Your task to perform on an android device: toggle location history Image 0: 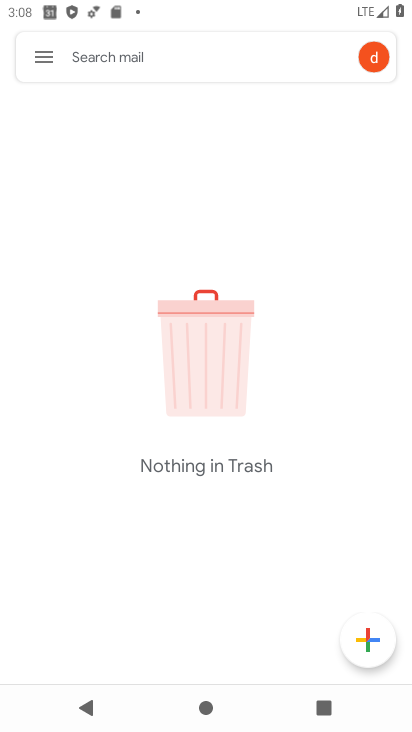
Step 0: press back button
Your task to perform on an android device: toggle location history Image 1: 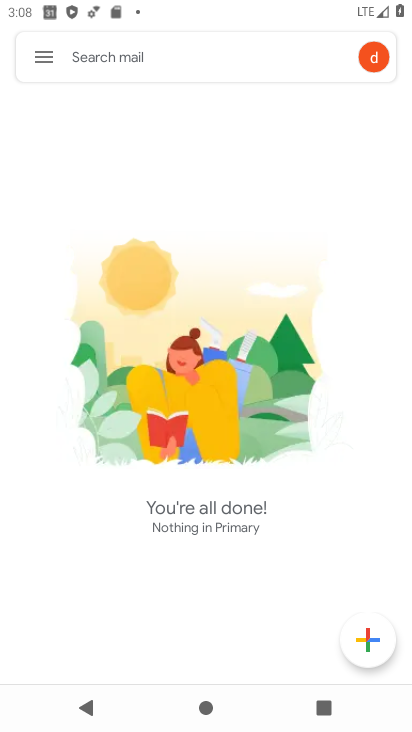
Step 1: press back button
Your task to perform on an android device: toggle location history Image 2: 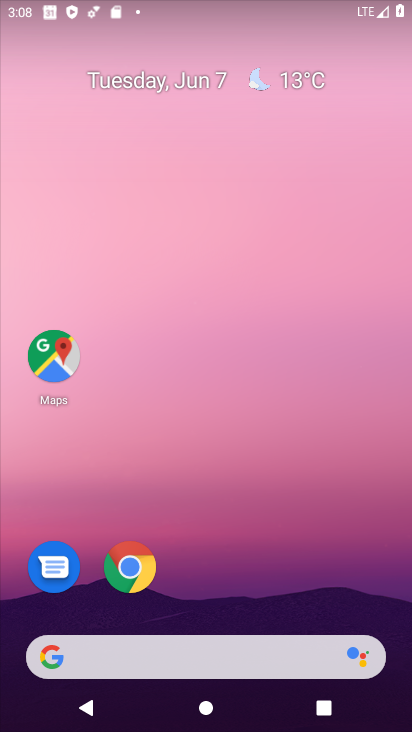
Step 2: drag from (282, 580) to (308, 26)
Your task to perform on an android device: toggle location history Image 3: 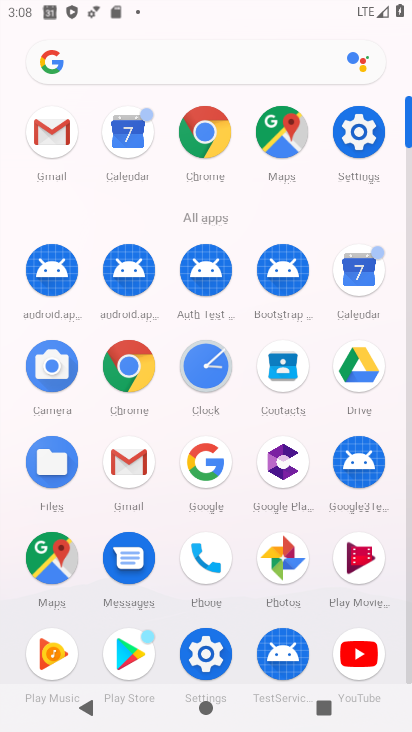
Step 3: click (359, 137)
Your task to perform on an android device: toggle location history Image 4: 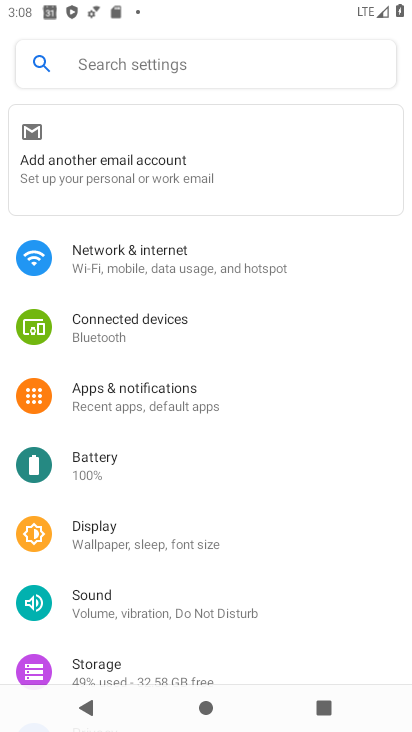
Step 4: drag from (130, 586) to (259, 78)
Your task to perform on an android device: toggle location history Image 5: 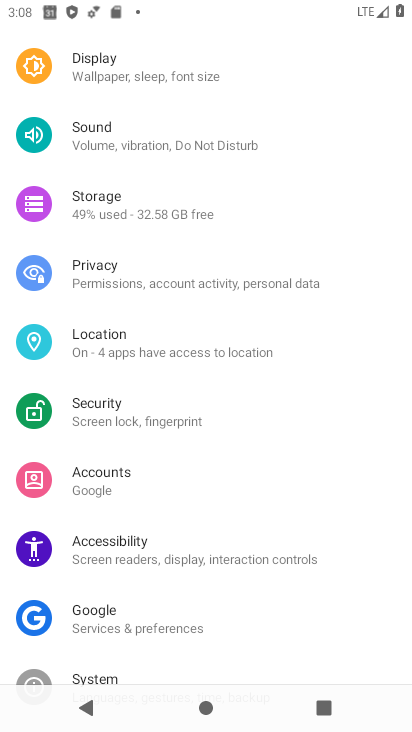
Step 5: click (110, 346)
Your task to perform on an android device: toggle location history Image 6: 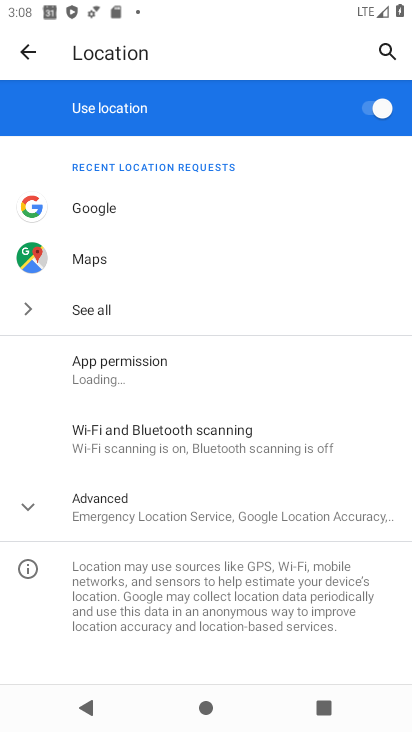
Step 6: click (112, 496)
Your task to perform on an android device: toggle location history Image 7: 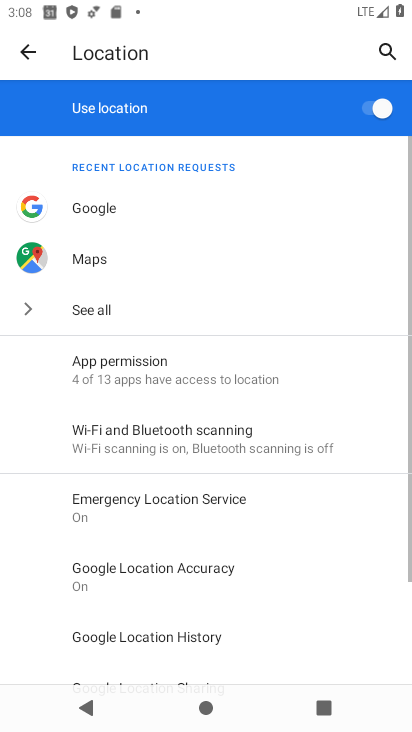
Step 7: click (151, 627)
Your task to perform on an android device: toggle location history Image 8: 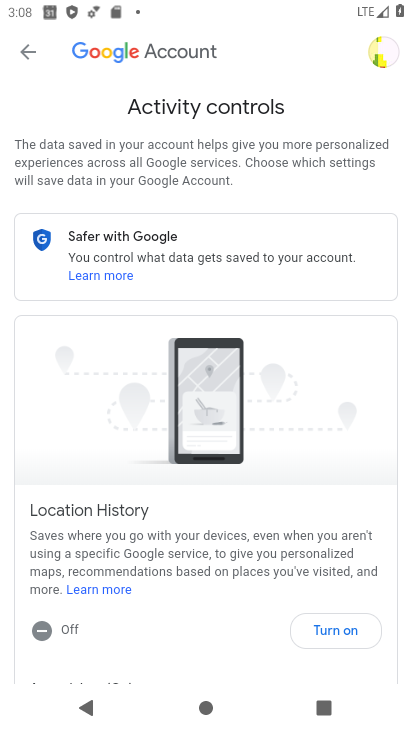
Step 8: click (344, 628)
Your task to perform on an android device: toggle location history Image 9: 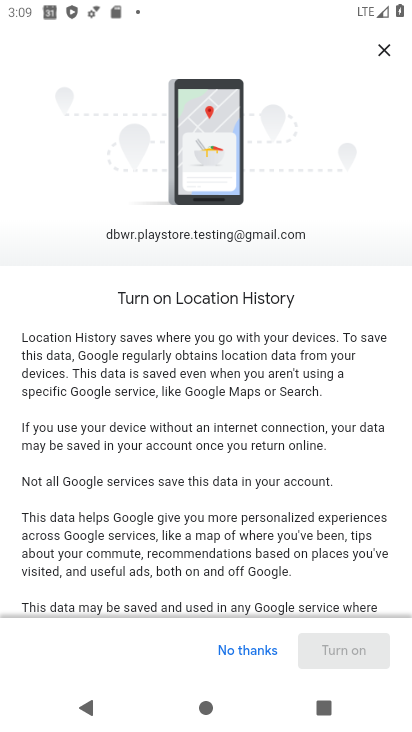
Step 9: drag from (228, 546) to (327, 138)
Your task to perform on an android device: toggle location history Image 10: 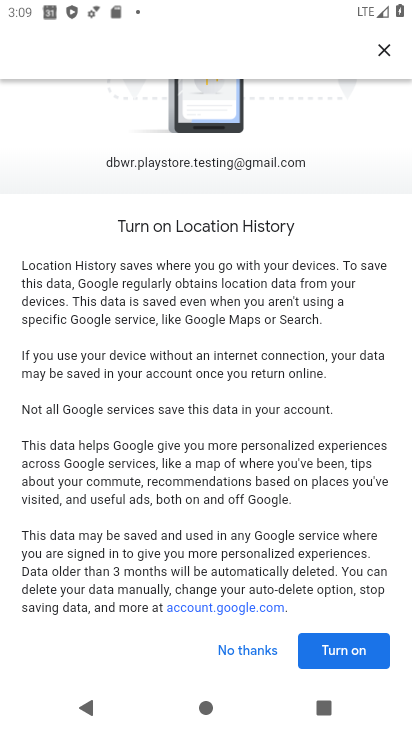
Step 10: drag from (238, 504) to (302, 42)
Your task to perform on an android device: toggle location history Image 11: 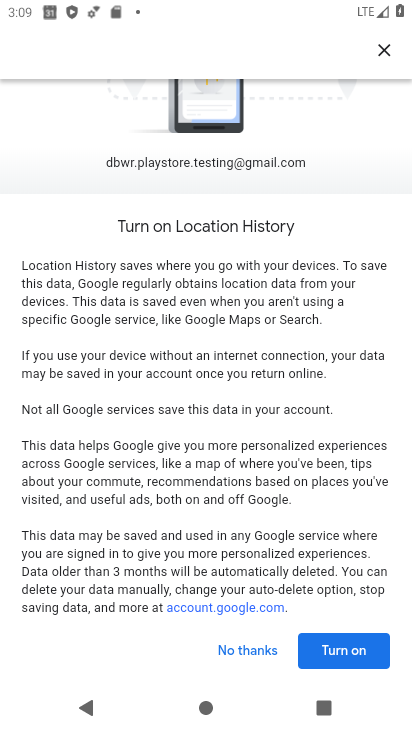
Step 11: click (321, 652)
Your task to perform on an android device: toggle location history Image 12: 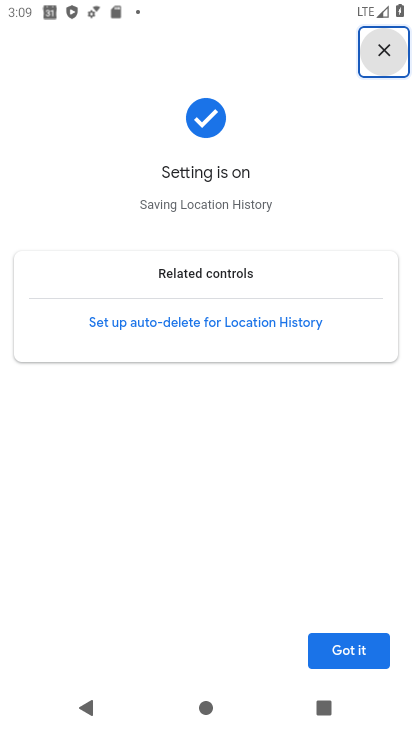
Step 12: click (342, 638)
Your task to perform on an android device: toggle location history Image 13: 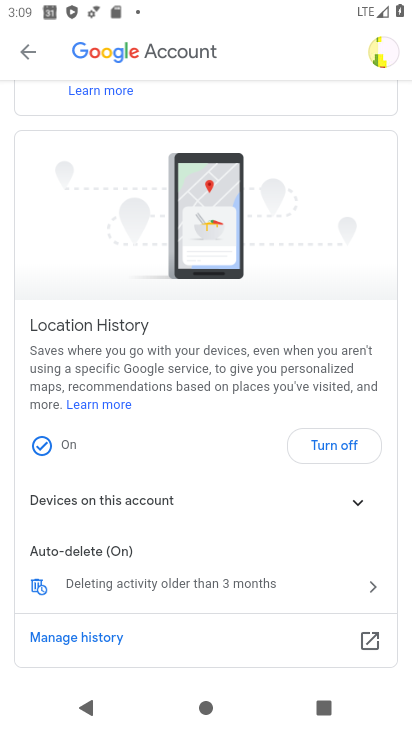
Step 13: click (333, 439)
Your task to perform on an android device: toggle location history Image 14: 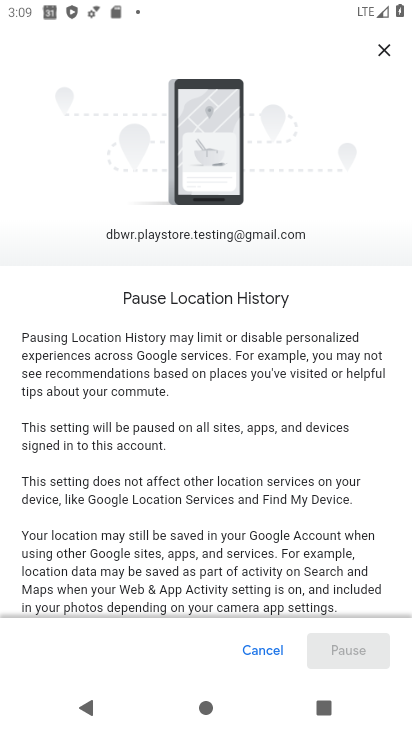
Step 14: drag from (297, 555) to (312, 81)
Your task to perform on an android device: toggle location history Image 15: 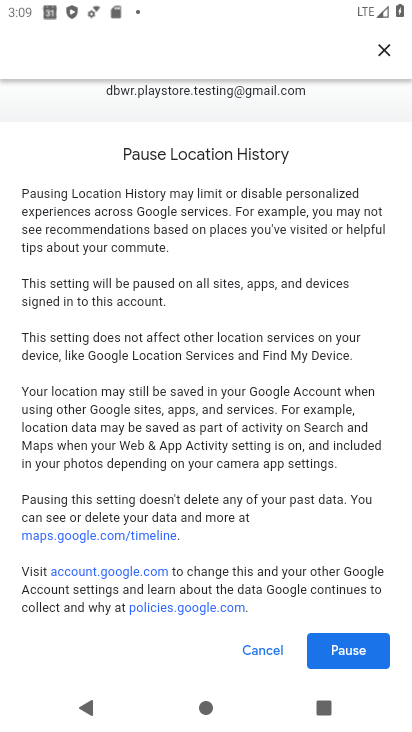
Step 15: drag from (202, 551) to (251, 247)
Your task to perform on an android device: toggle location history Image 16: 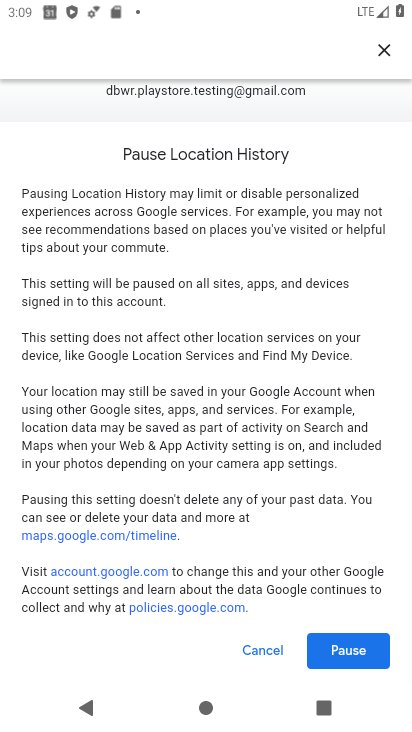
Step 16: click (344, 651)
Your task to perform on an android device: toggle location history Image 17: 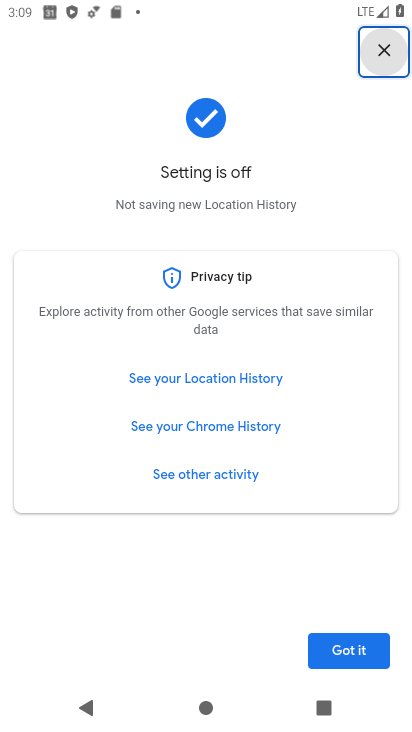
Step 17: task complete